Your task to perform on an android device: Open Chrome and go to settings Image 0: 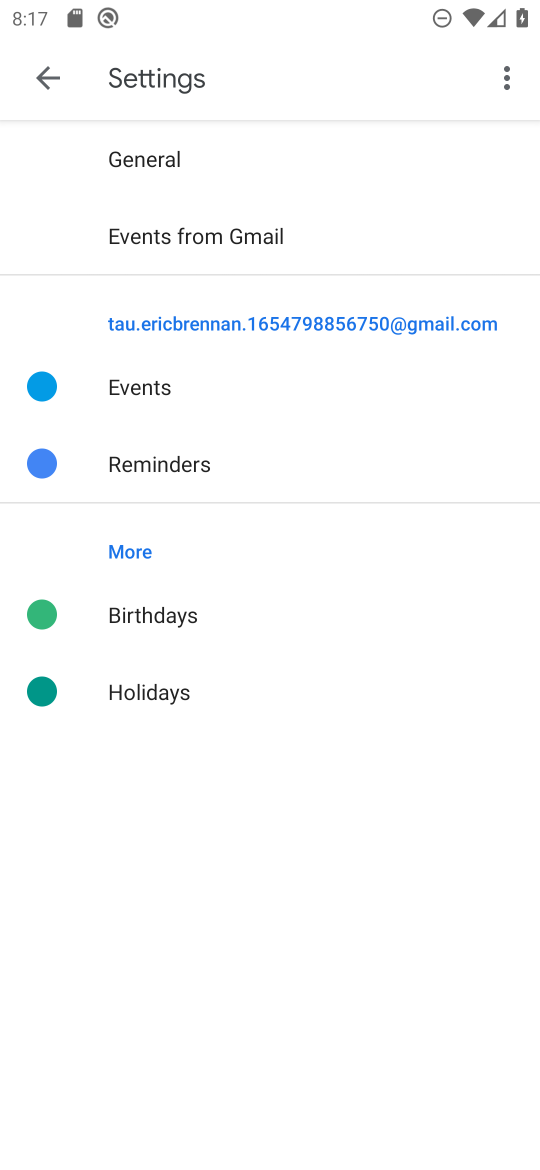
Step 0: press home button
Your task to perform on an android device: Open Chrome and go to settings Image 1: 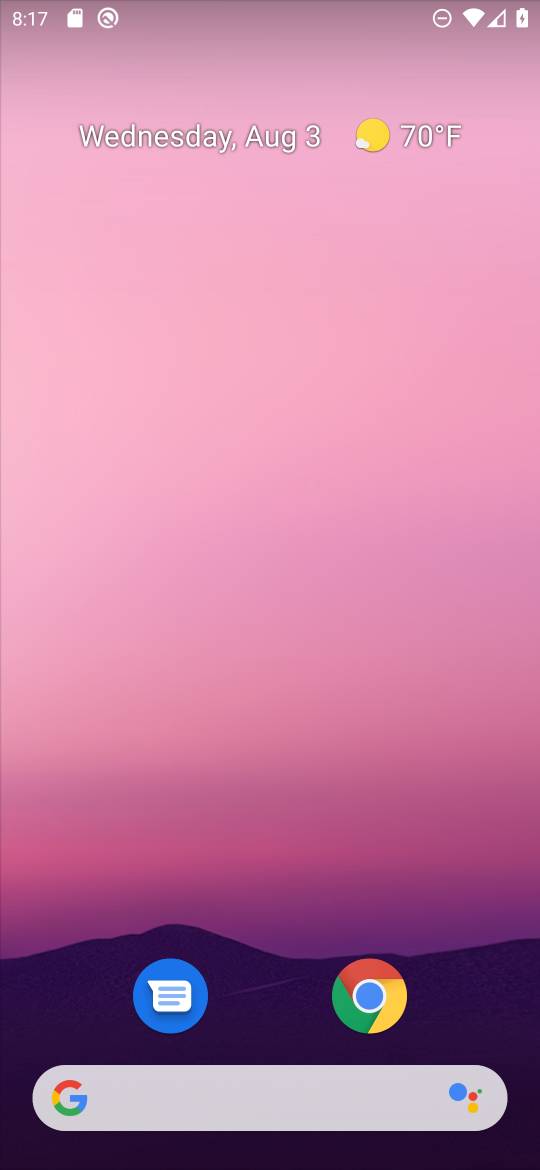
Step 1: drag from (294, 852) to (270, 0)
Your task to perform on an android device: Open Chrome and go to settings Image 2: 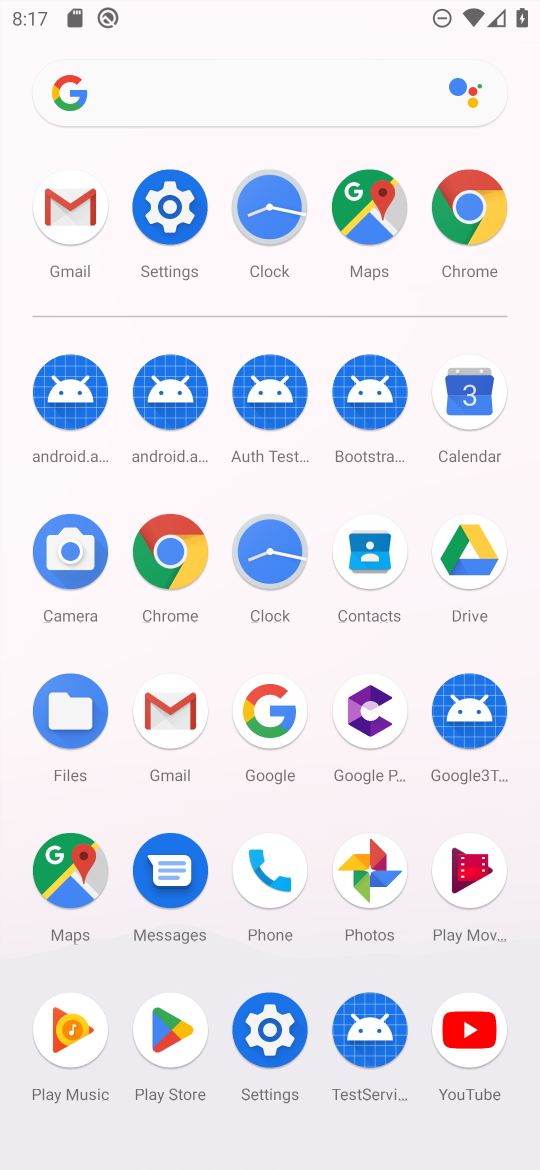
Step 2: click (473, 212)
Your task to perform on an android device: Open Chrome and go to settings Image 3: 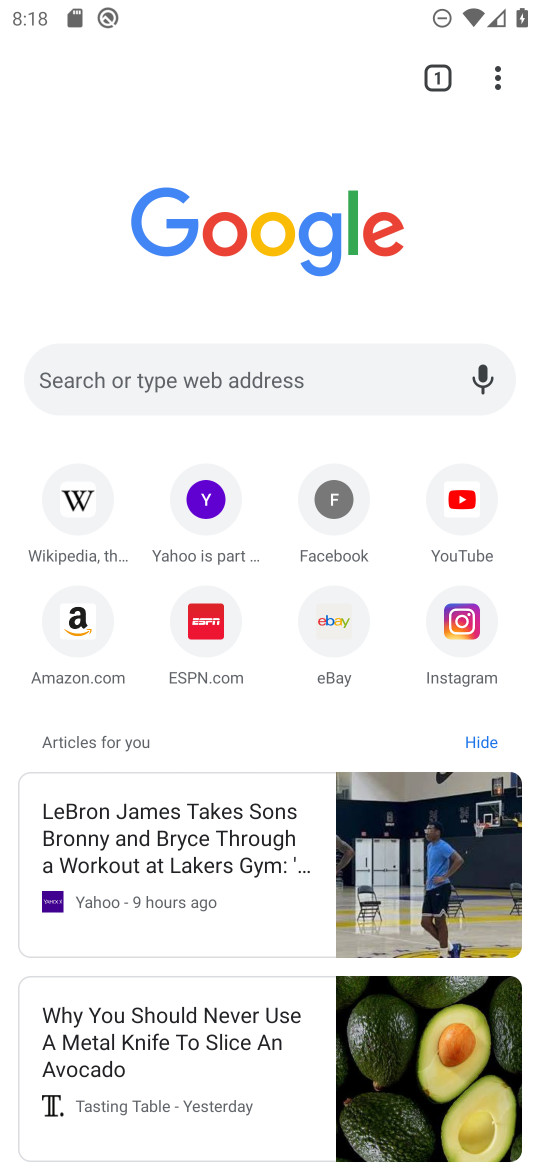
Step 3: click (493, 79)
Your task to perform on an android device: Open Chrome and go to settings Image 4: 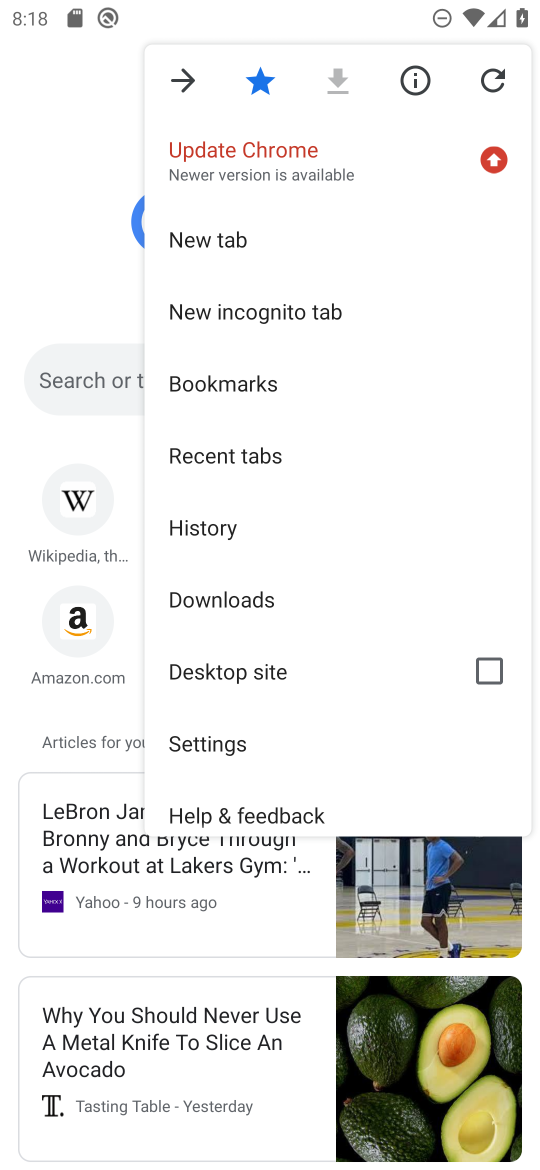
Step 4: click (213, 735)
Your task to perform on an android device: Open Chrome and go to settings Image 5: 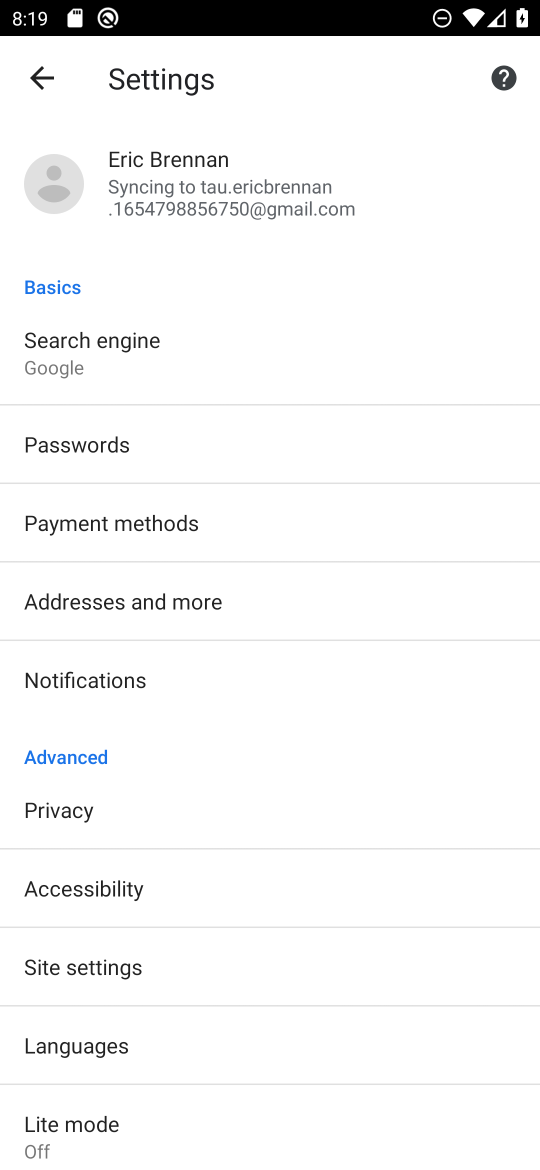
Step 5: task complete